Your task to perform on an android device: turn notification dots off Image 0: 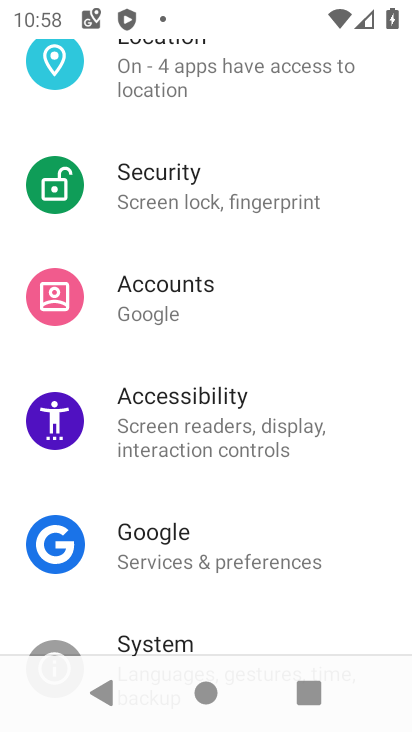
Step 0: drag from (193, 249) to (228, 647)
Your task to perform on an android device: turn notification dots off Image 1: 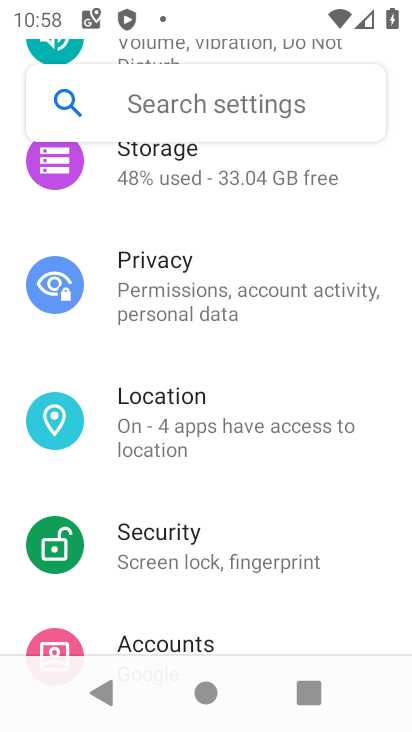
Step 1: drag from (230, 228) to (201, 731)
Your task to perform on an android device: turn notification dots off Image 2: 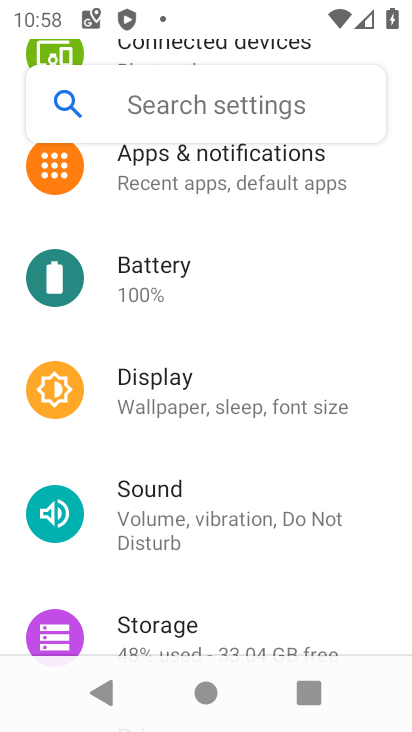
Step 2: click (225, 179)
Your task to perform on an android device: turn notification dots off Image 3: 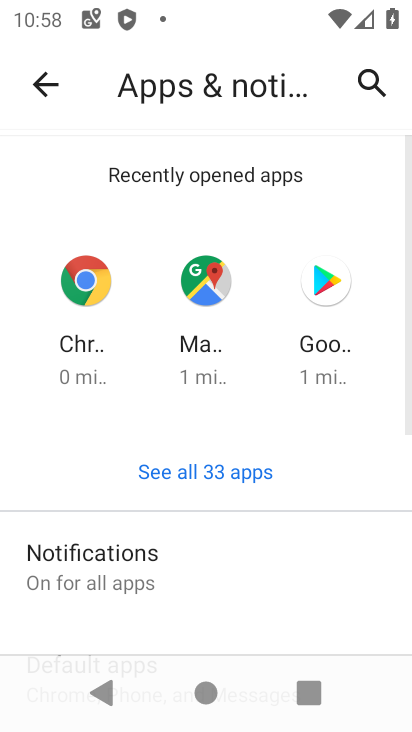
Step 3: click (284, 552)
Your task to perform on an android device: turn notification dots off Image 4: 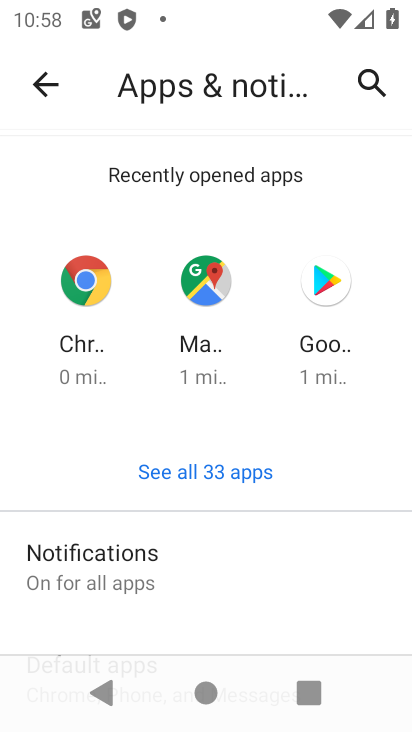
Step 4: drag from (286, 542) to (262, 56)
Your task to perform on an android device: turn notification dots off Image 5: 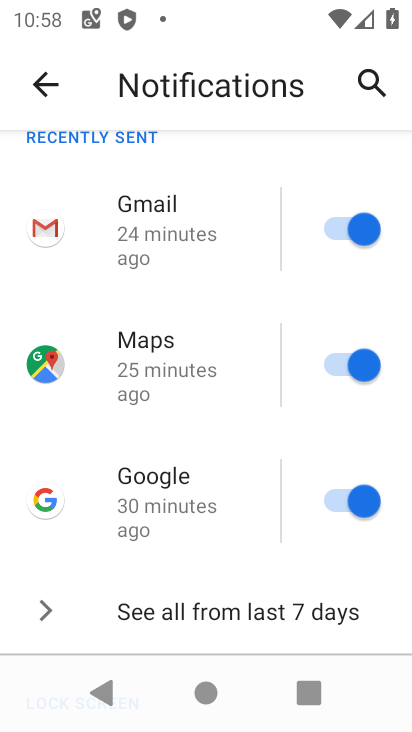
Step 5: drag from (254, 527) to (201, 0)
Your task to perform on an android device: turn notification dots off Image 6: 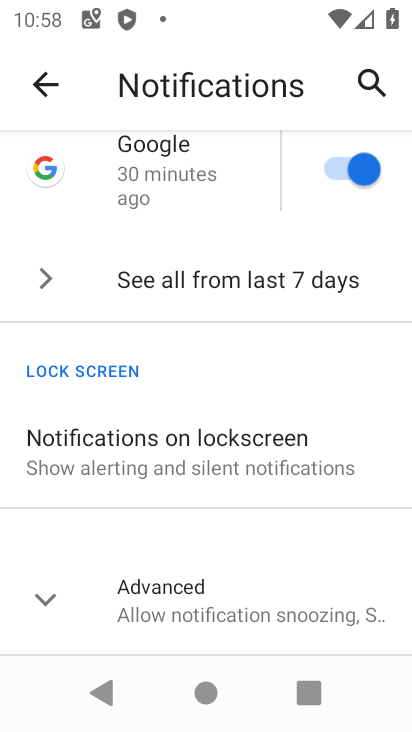
Step 6: click (180, 580)
Your task to perform on an android device: turn notification dots off Image 7: 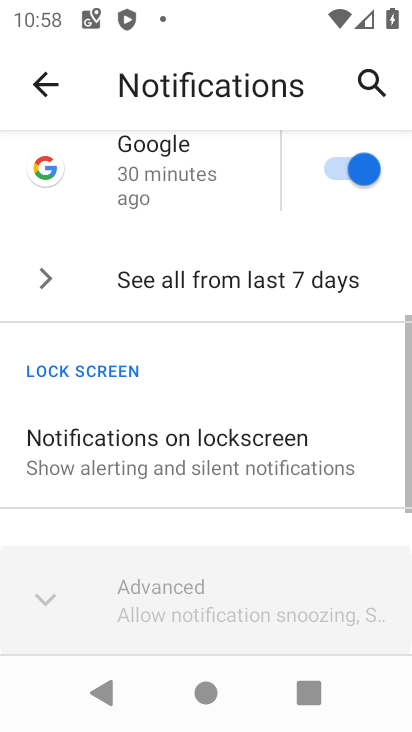
Step 7: drag from (180, 580) to (155, 37)
Your task to perform on an android device: turn notification dots off Image 8: 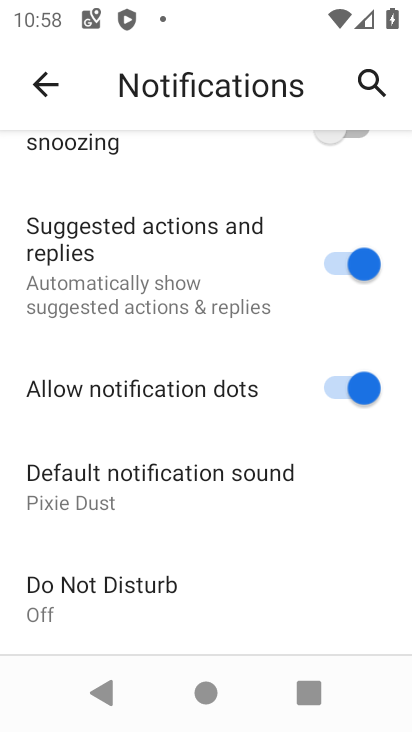
Step 8: click (345, 380)
Your task to perform on an android device: turn notification dots off Image 9: 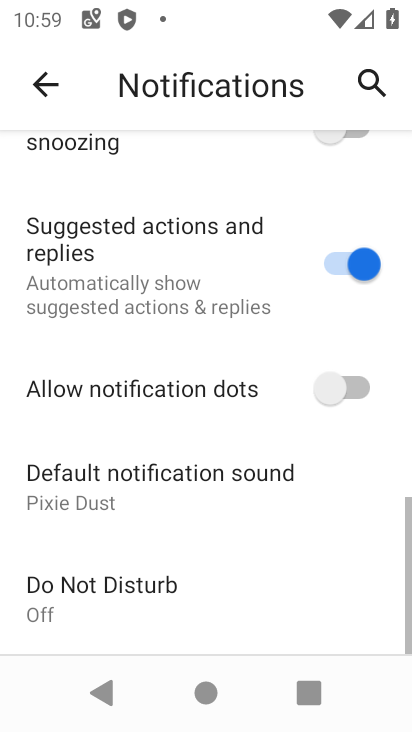
Step 9: task complete